Your task to perform on an android device: open chrome and create a bookmark for the current page Image 0: 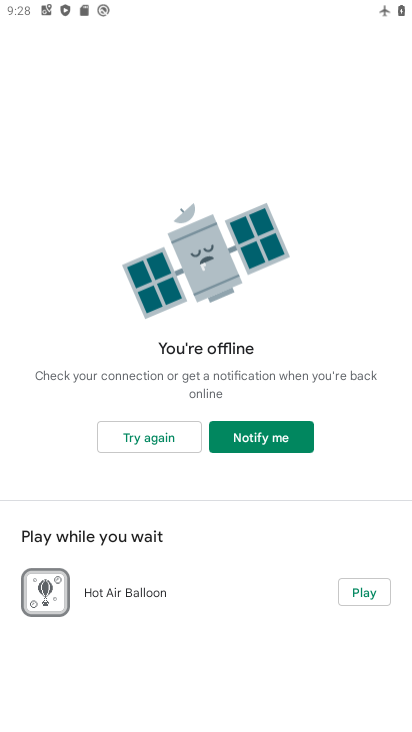
Step 0: press home button
Your task to perform on an android device: open chrome and create a bookmark for the current page Image 1: 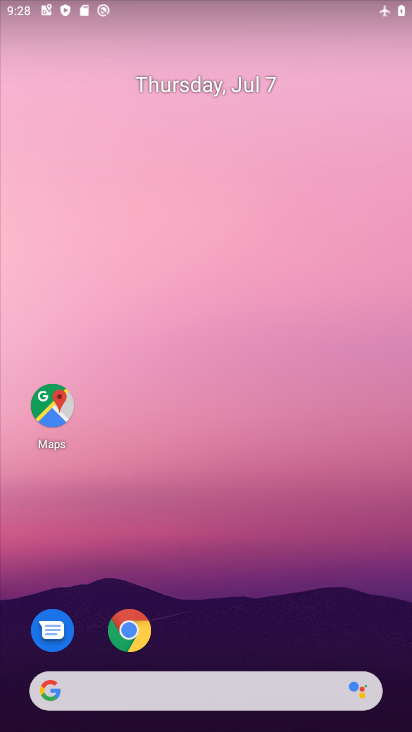
Step 1: click (124, 634)
Your task to perform on an android device: open chrome and create a bookmark for the current page Image 2: 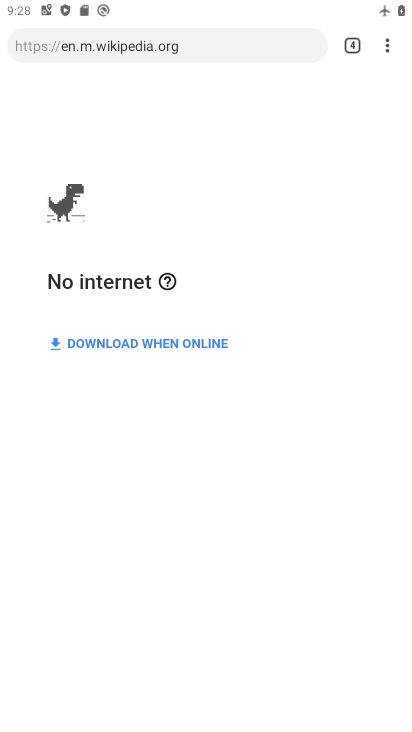
Step 2: click (387, 46)
Your task to perform on an android device: open chrome and create a bookmark for the current page Image 3: 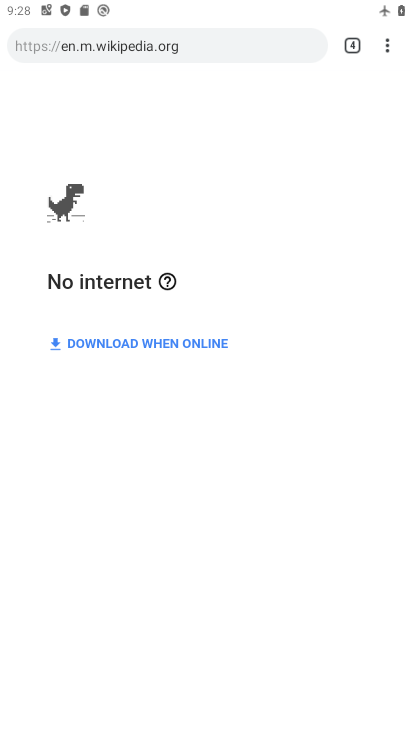
Step 3: task complete